Your task to perform on an android device: toggle improve location accuracy Image 0: 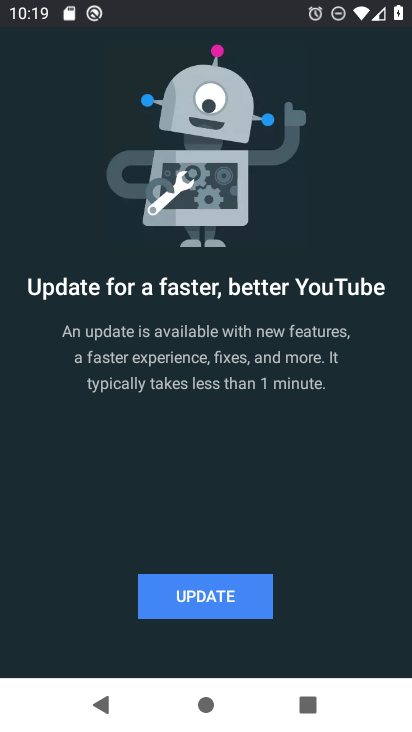
Step 0: press home button
Your task to perform on an android device: toggle improve location accuracy Image 1: 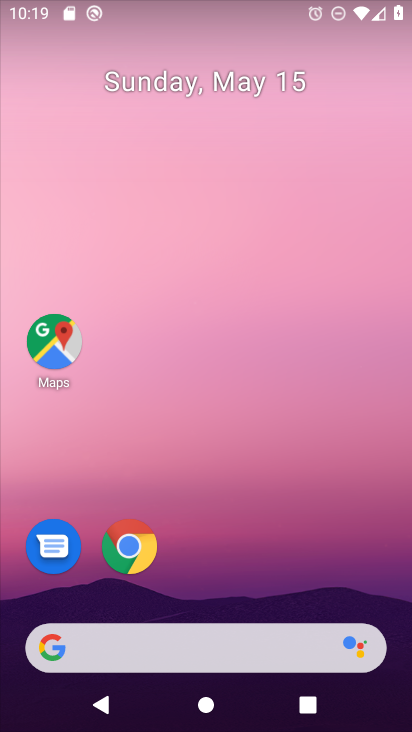
Step 1: drag from (297, 549) to (246, 10)
Your task to perform on an android device: toggle improve location accuracy Image 2: 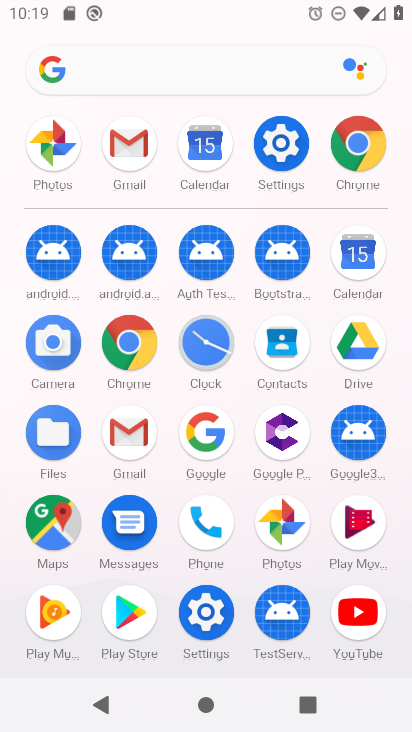
Step 2: click (284, 148)
Your task to perform on an android device: toggle improve location accuracy Image 3: 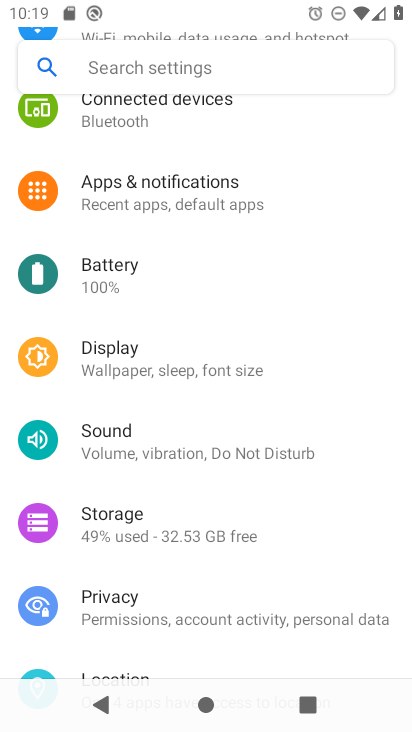
Step 3: drag from (202, 653) to (188, 458)
Your task to perform on an android device: toggle improve location accuracy Image 4: 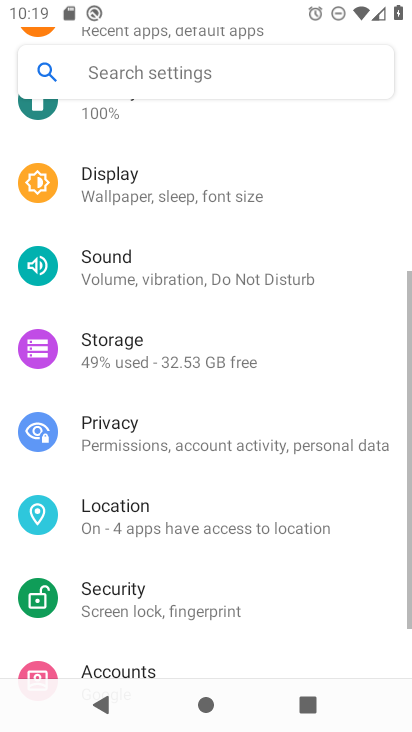
Step 4: click (182, 522)
Your task to perform on an android device: toggle improve location accuracy Image 5: 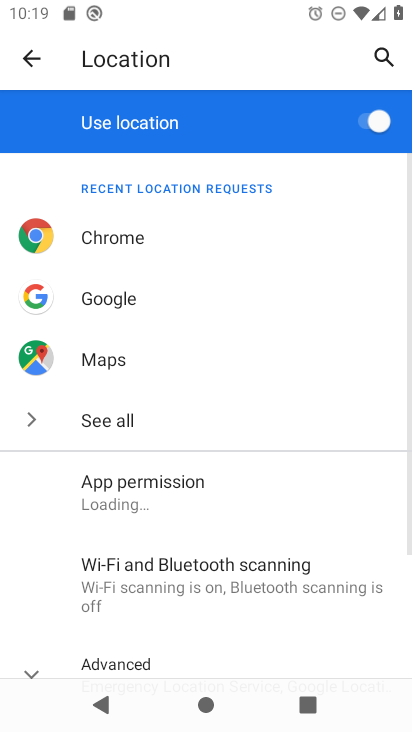
Step 5: drag from (328, 593) to (335, 149)
Your task to perform on an android device: toggle improve location accuracy Image 6: 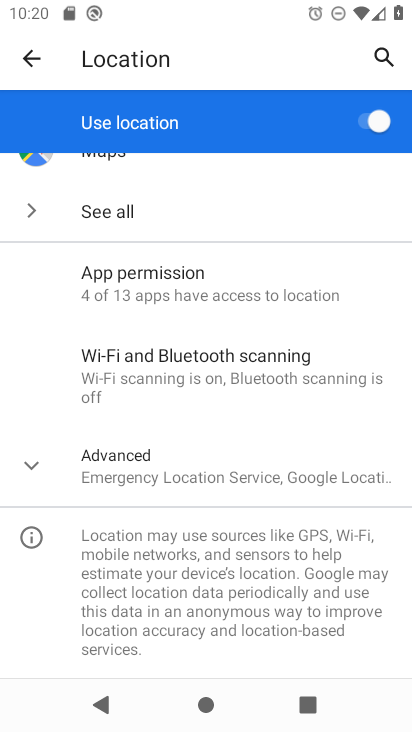
Step 6: click (166, 487)
Your task to perform on an android device: toggle improve location accuracy Image 7: 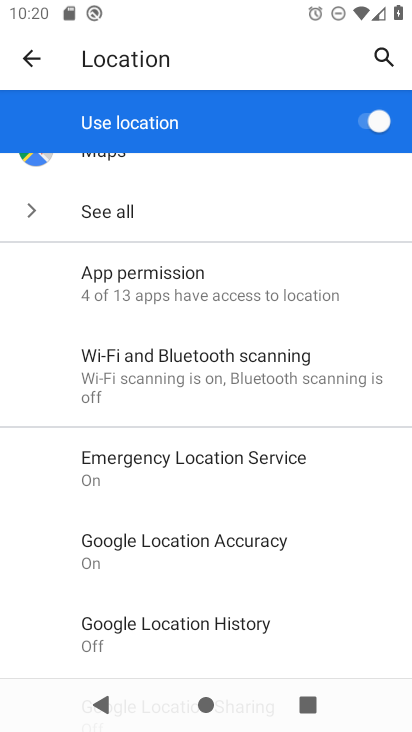
Step 7: click (247, 532)
Your task to perform on an android device: toggle improve location accuracy Image 8: 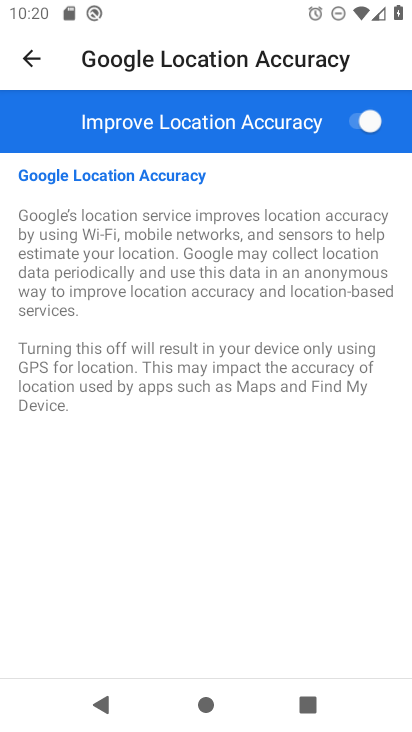
Step 8: click (352, 125)
Your task to perform on an android device: toggle improve location accuracy Image 9: 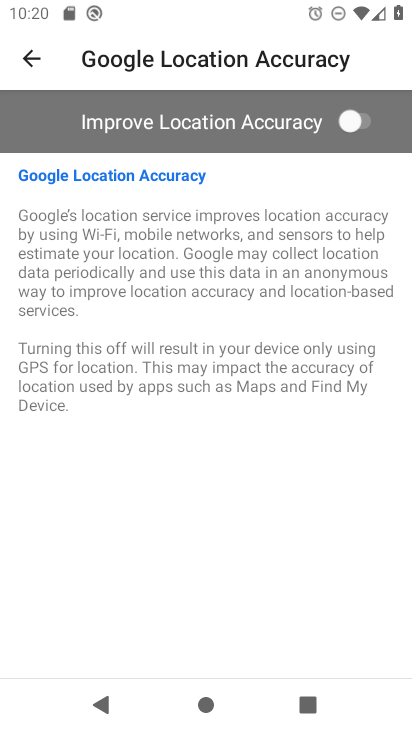
Step 9: task complete